Your task to perform on an android device: Open the stopwatch Image 0: 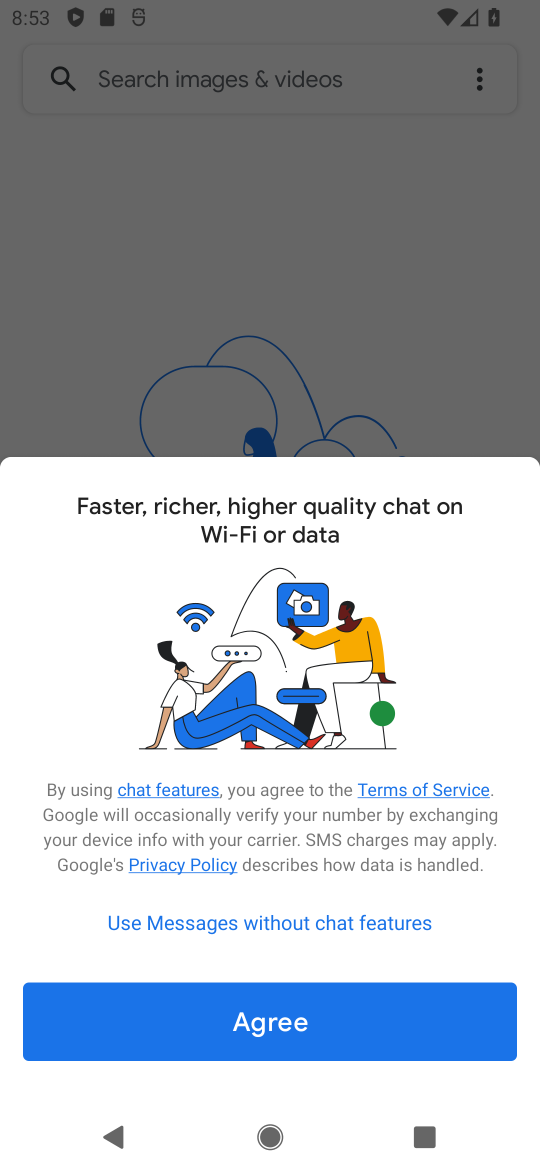
Step 0: press home button
Your task to perform on an android device: Open the stopwatch Image 1: 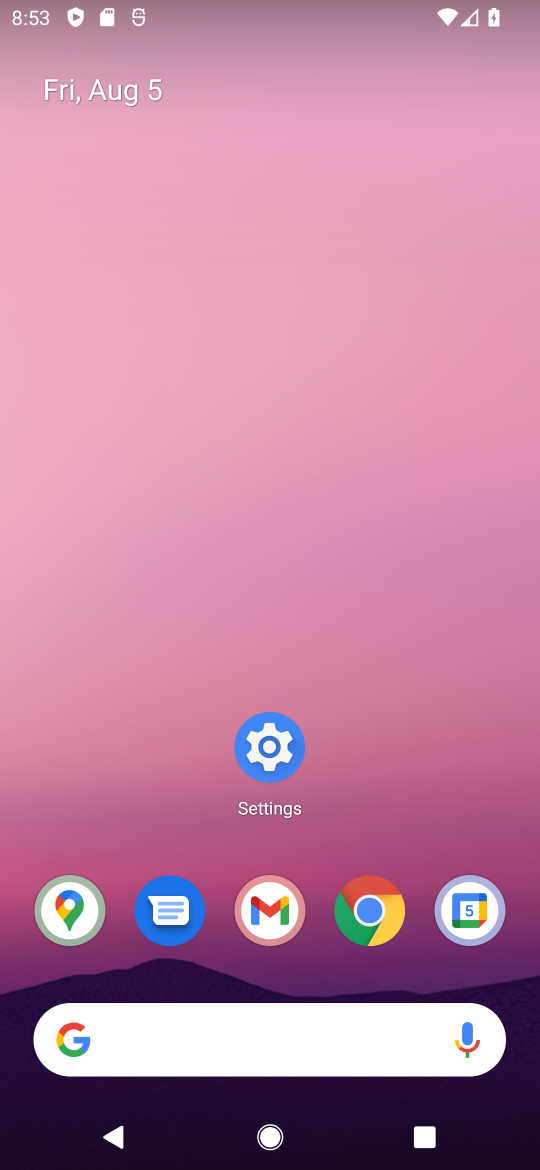
Step 1: drag from (302, 1034) to (539, 369)
Your task to perform on an android device: Open the stopwatch Image 2: 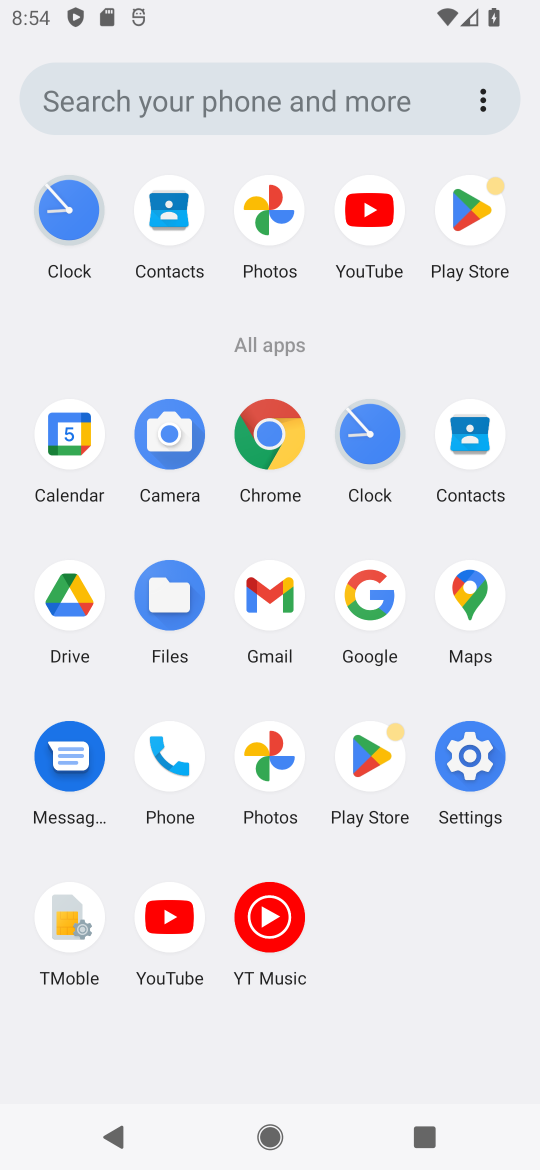
Step 2: click (65, 205)
Your task to perform on an android device: Open the stopwatch Image 3: 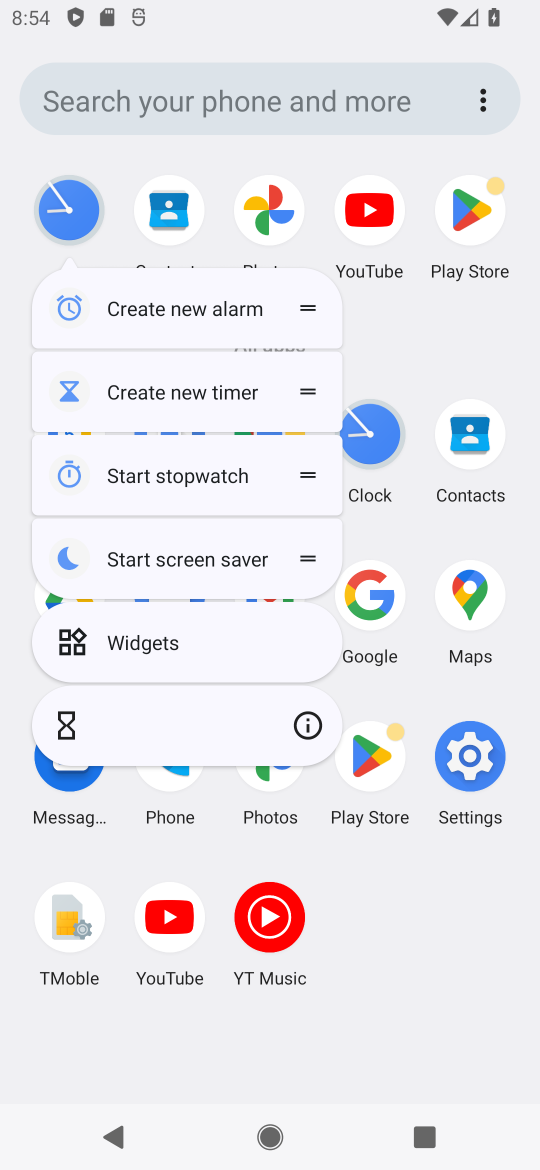
Step 3: click (65, 207)
Your task to perform on an android device: Open the stopwatch Image 4: 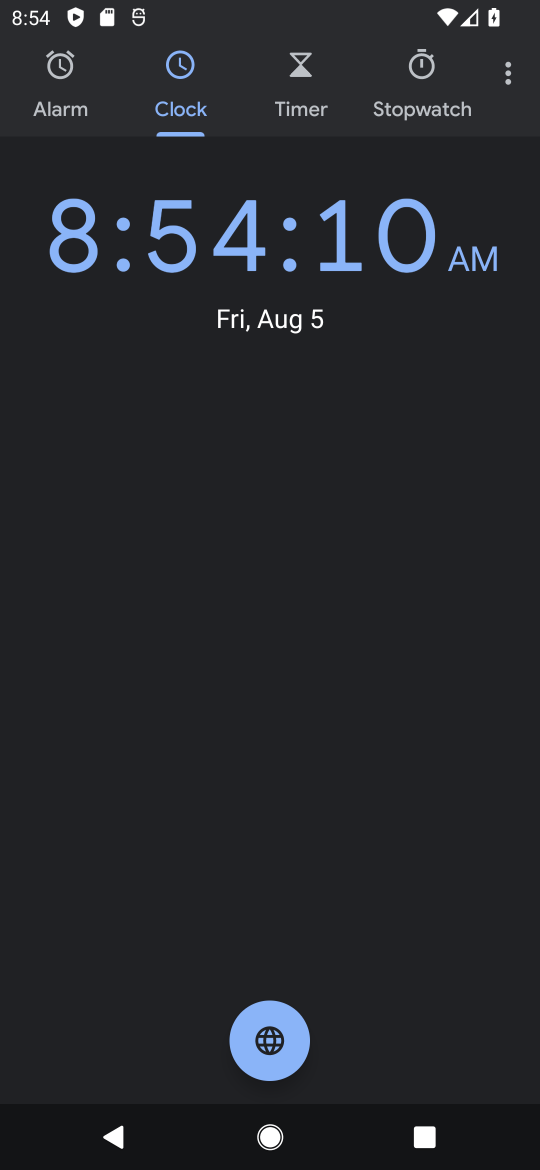
Step 4: click (436, 103)
Your task to perform on an android device: Open the stopwatch Image 5: 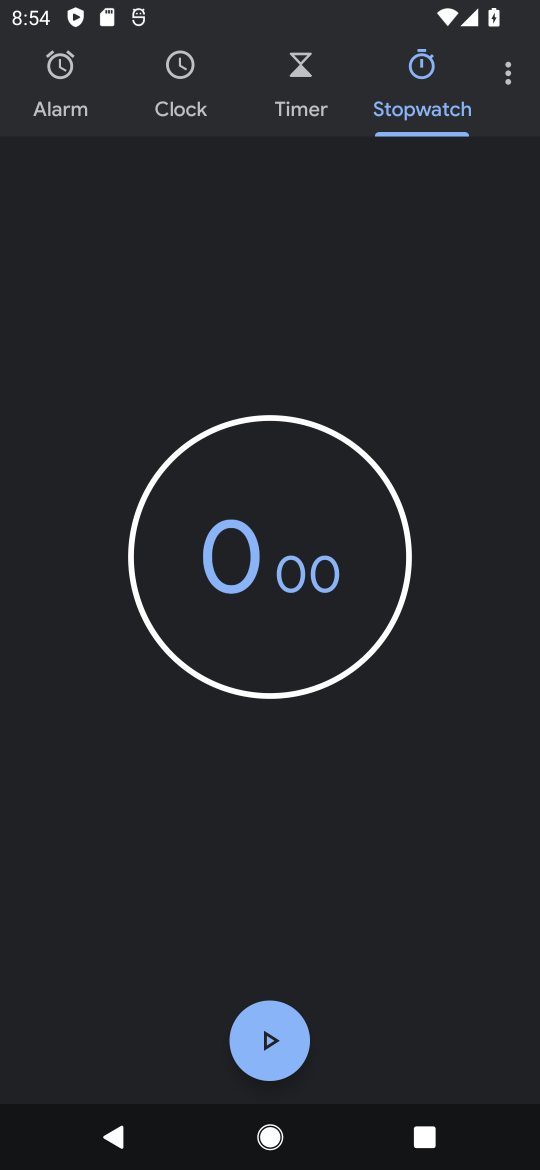
Step 5: task complete